Your task to perform on an android device: toggle location history Image 0: 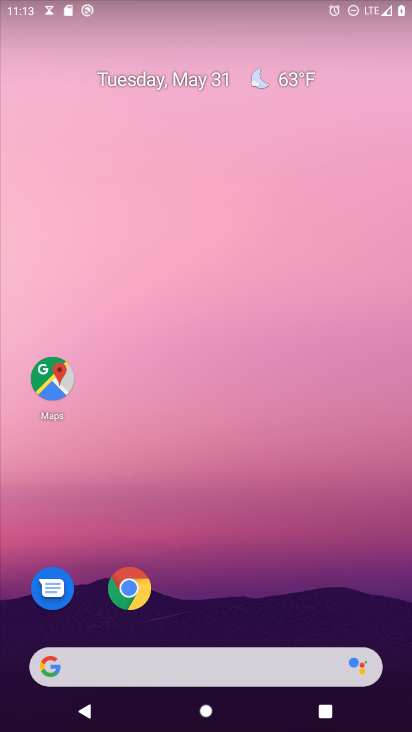
Step 0: drag from (241, 592) to (220, 159)
Your task to perform on an android device: toggle location history Image 1: 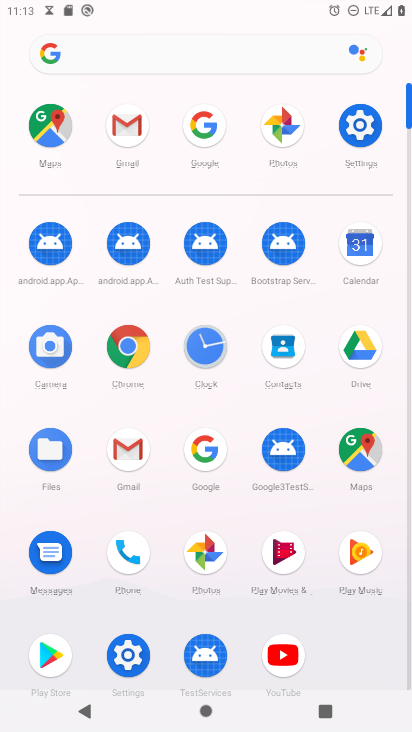
Step 1: click (358, 126)
Your task to perform on an android device: toggle location history Image 2: 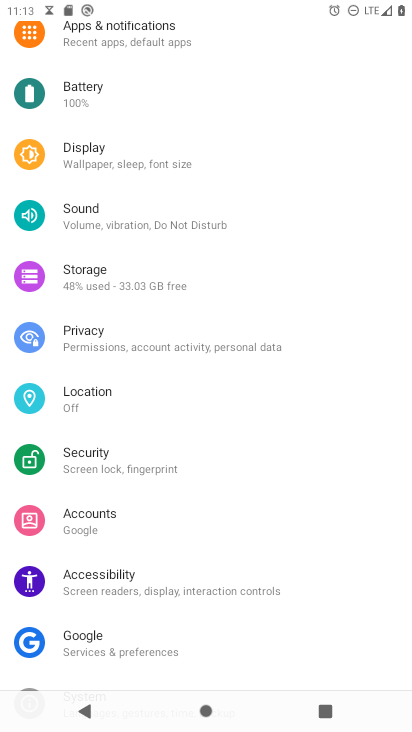
Step 2: click (102, 397)
Your task to perform on an android device: toggle location history Image 3: 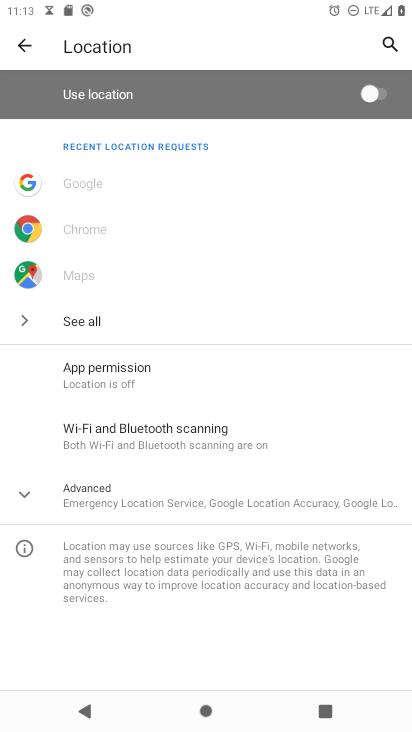
Step 3: click (182, 496)
Your task to perform on an android device: toggle location history Image 4: 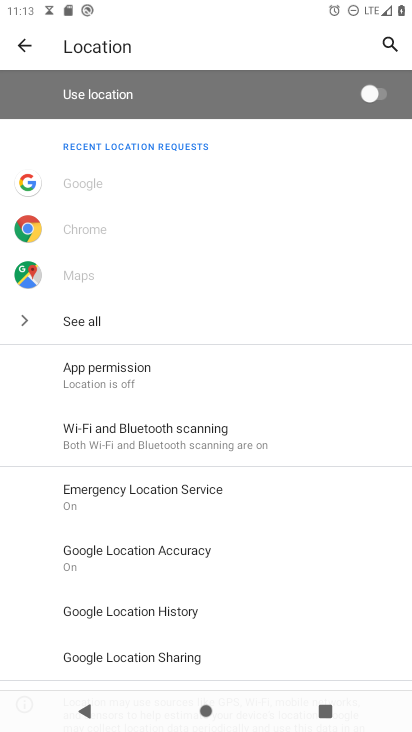
Step 4: click (143, 613)
Your task to perform on an android device: toggle location history Image 5: 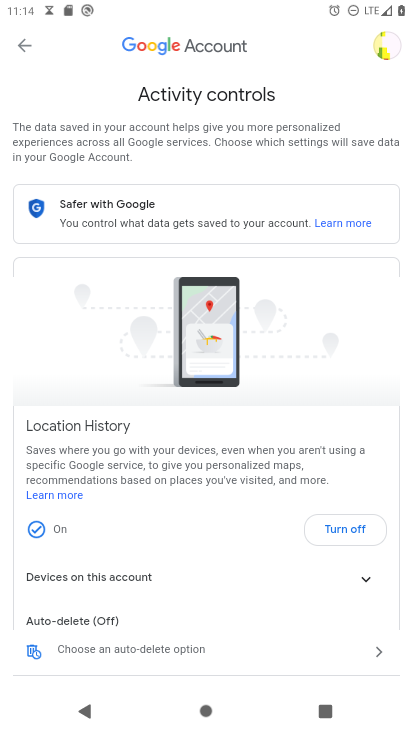
Step 5: click (348, 531)
Your task to perform on an android device: toggle location history Image 6: 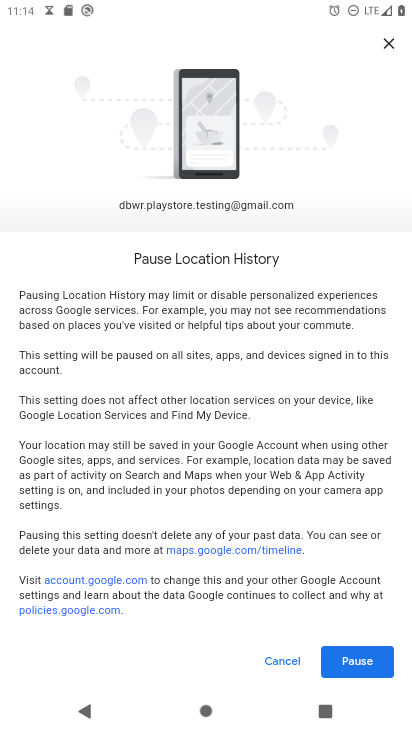
Step 6: click (362, 666)
Your task to perform on an android device: toggle location history Image 7: 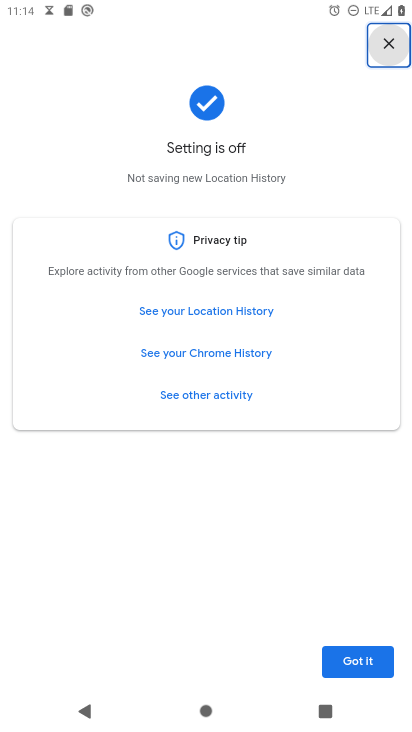
Step 7: click (355, 658)
Your task to perform on an android device: toggle location history Image 8: 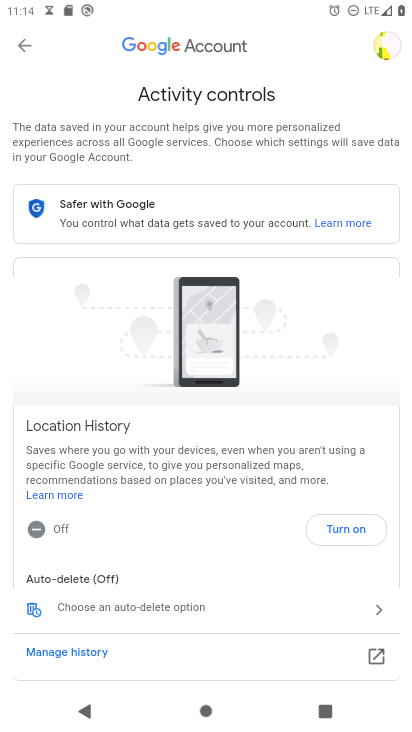
Step 8: task complete